Your task to perform on an android device: delete a single message in the gmail app Image 0: 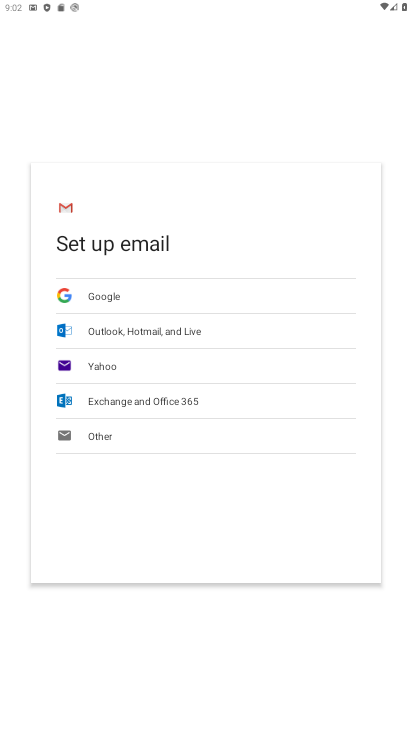
Step 0: press home button
Your task to perform on an android device: delete a single message in the gmail app Image 1: 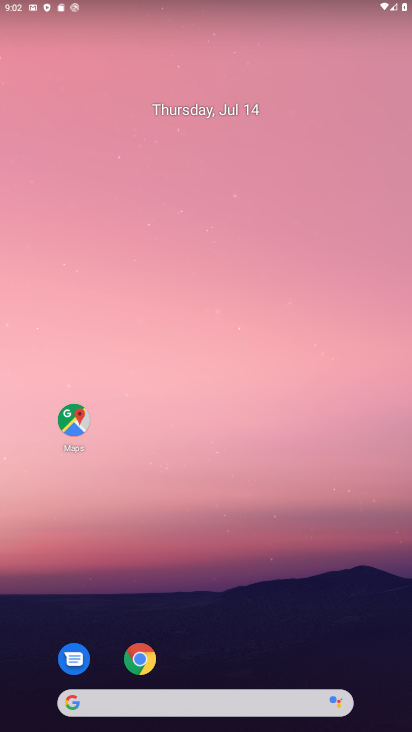
Step 1: drag from (236, 655) to (295, 80)
Your task to perform on an android device: delete a single message in the gmail app Image 2: 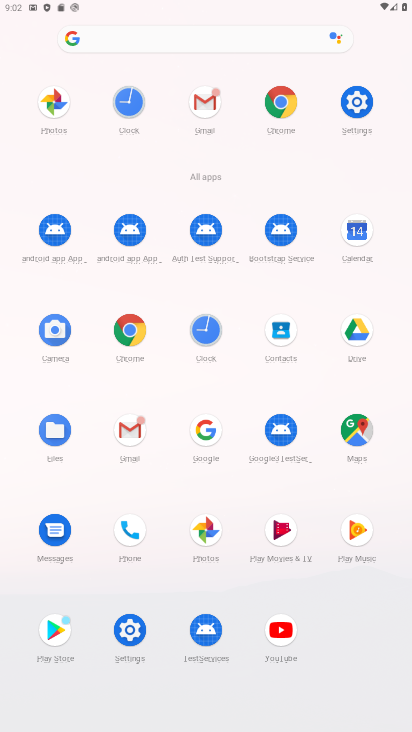
Step 2: click (204, 93)
Your task to perform on an android device: delete a single message in the gmail app Image 3: 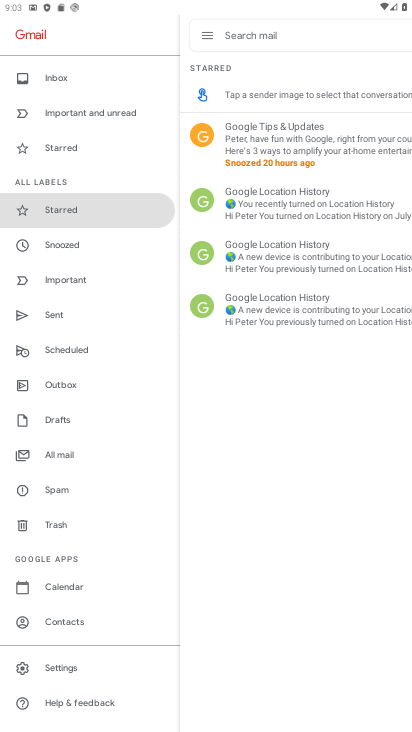
Step 3: click (278, 159)
Your task to perform on an android device: delete a single message in the gmail app Image 4: 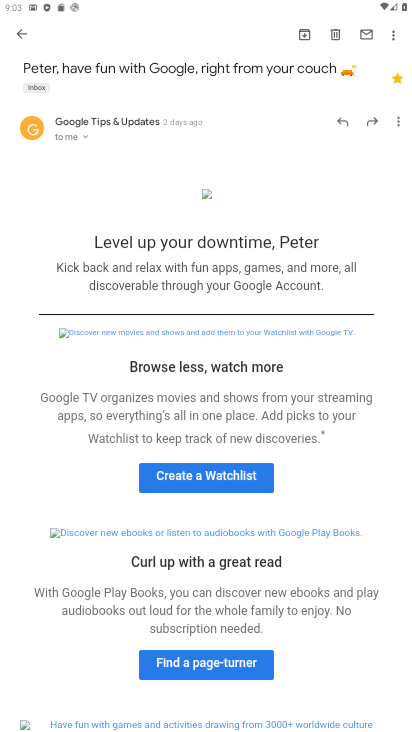
Step 4: click (334, 36)
Your task to perform on an android device: delete a single message in the gmail app Image 5: 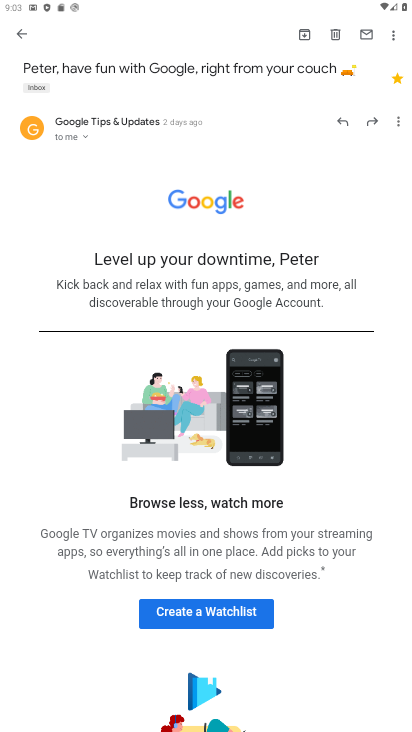
Step 5: click (335, 29)
Your task to perform on an android device: delete a single message in the gmail app Image 6: 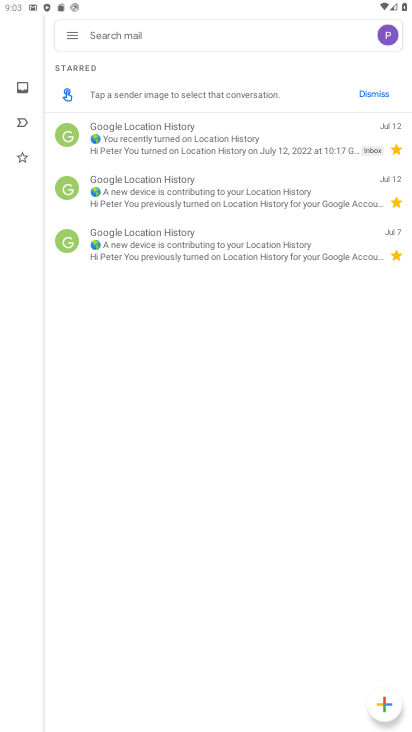
Step 6: task complete